Your task to perform on an android device: Add usb-c to the cart on bestbuy Image 0: 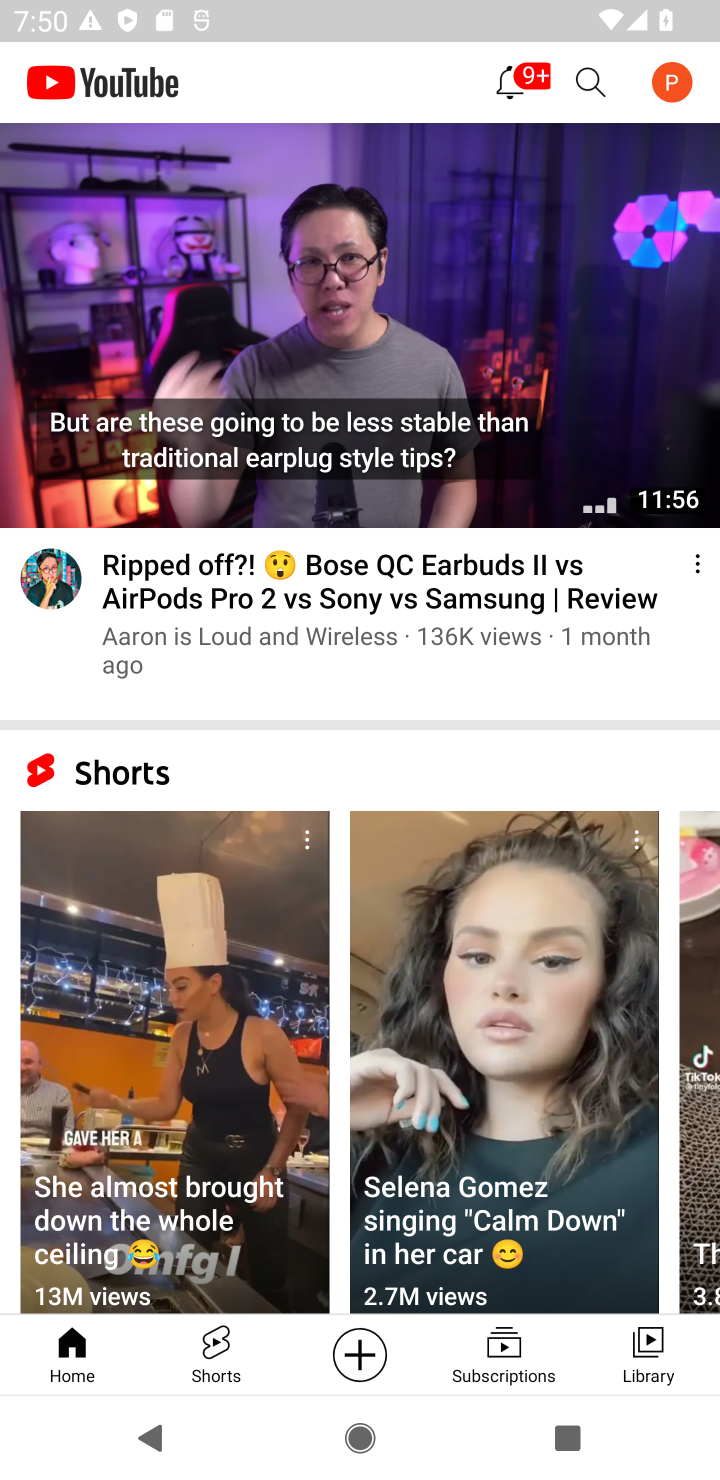
Step 0: press home button
Your task to perform on an android device: Add usb-c to the cart on bestbuy Image 1: 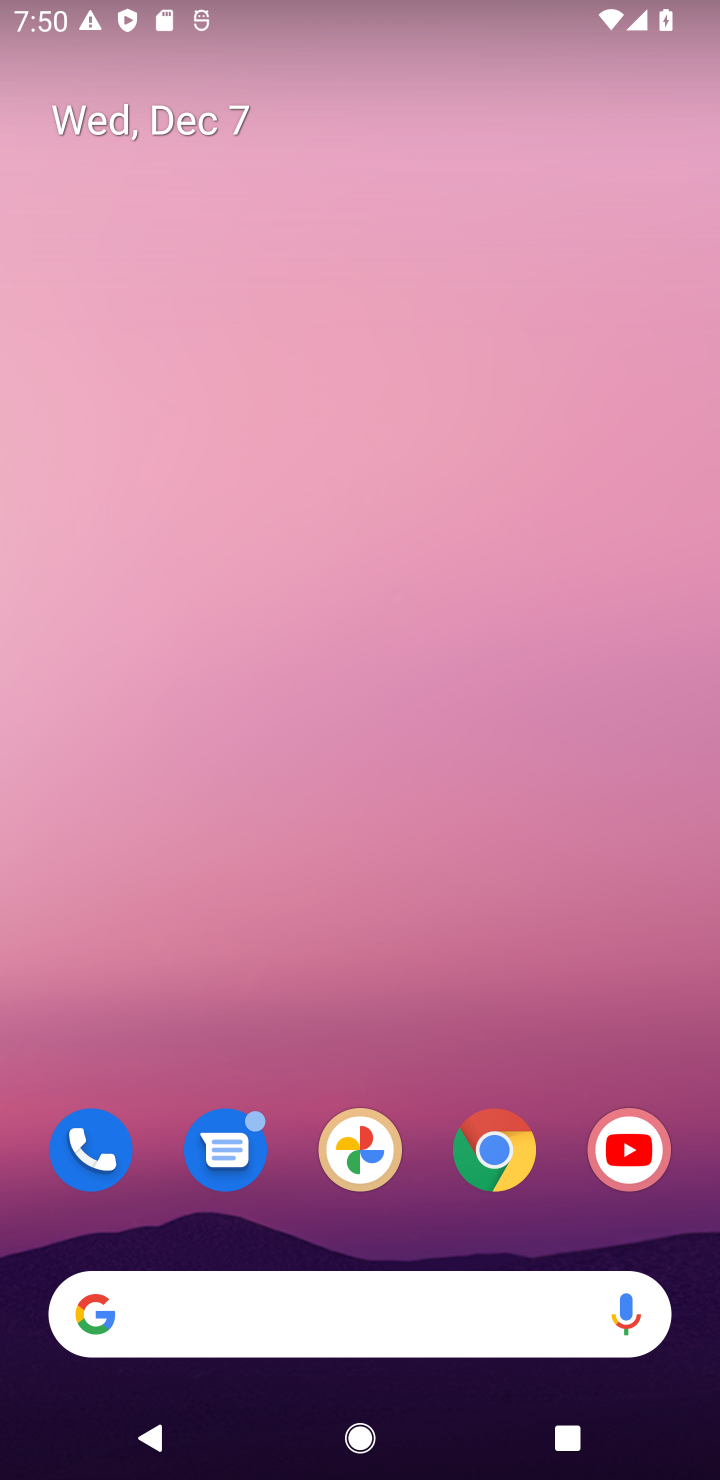
Step 1: task complete